Your task to perform on an android device: When is my next appointment? Image 0: 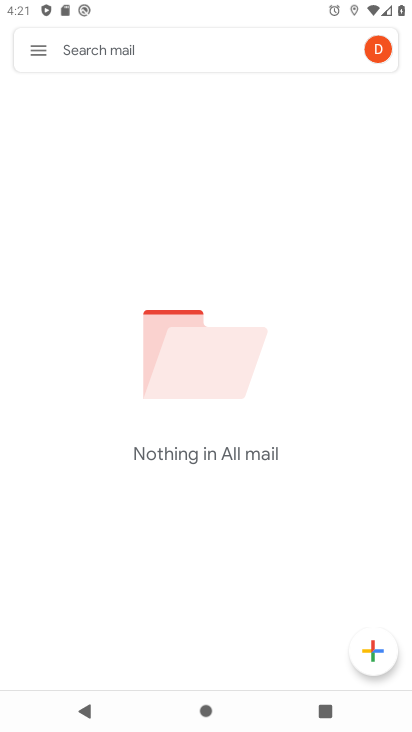
Step 0: press home button
Your task to perform on an android device: When is my next appointment? Image 1: 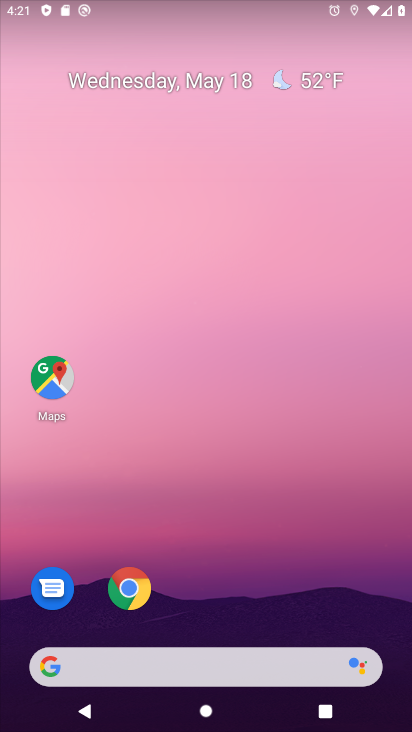
Step 1: drag from (232, 552) to (295, 151)
Your task to perform on an android device: When is my next appointment? Image 2: 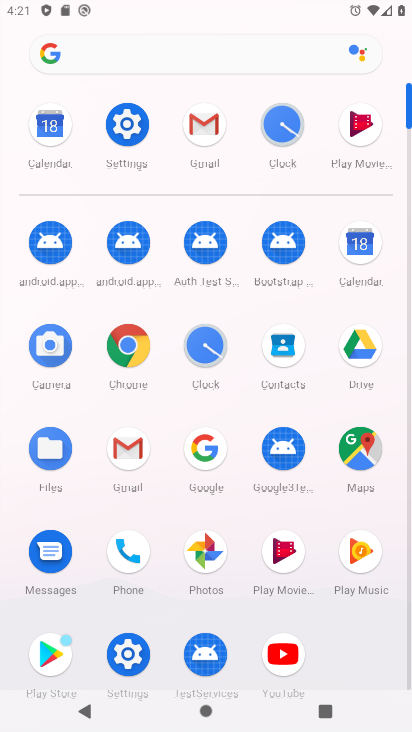
Step 2: click (363, 238)
Your task to perform on an android device: When is my next appointment? Image 3: 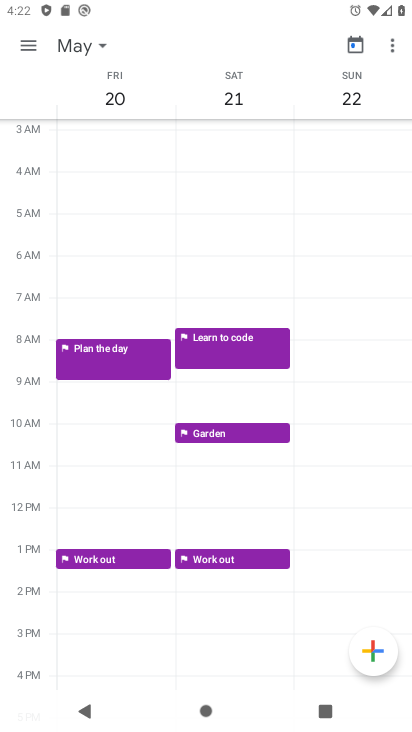
Step 3: click (66, 46)
Your task to perform on an android device: When is my next appointment? Image 4: 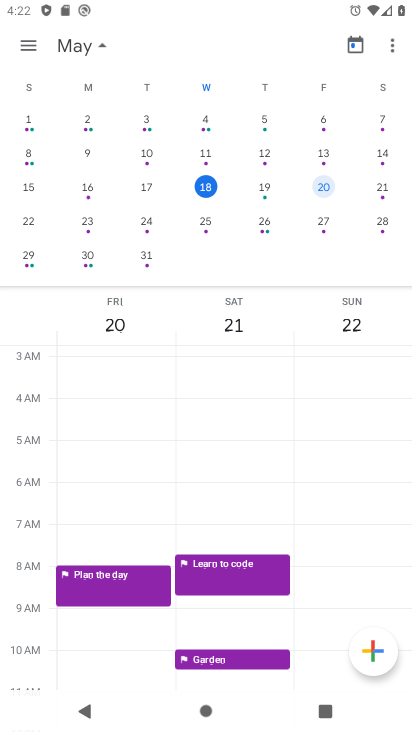
Step 4: click (200, 187)
Your task to perform on an android device: When is my next appointment? Image 5: 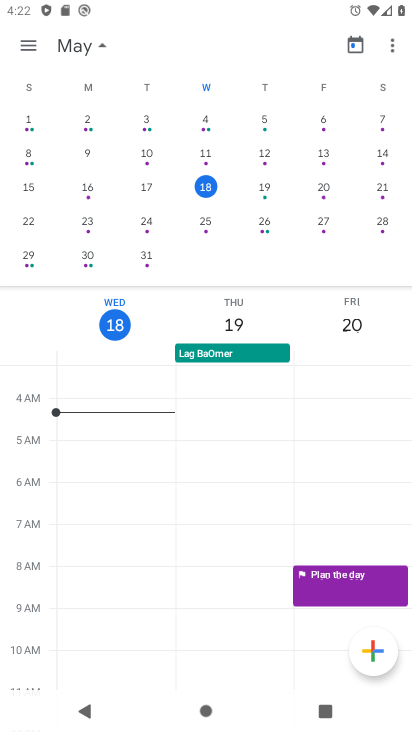
Step 5: task complete